Your task to perform on an android device: Search for sushi restaurants on Maps Image 0: 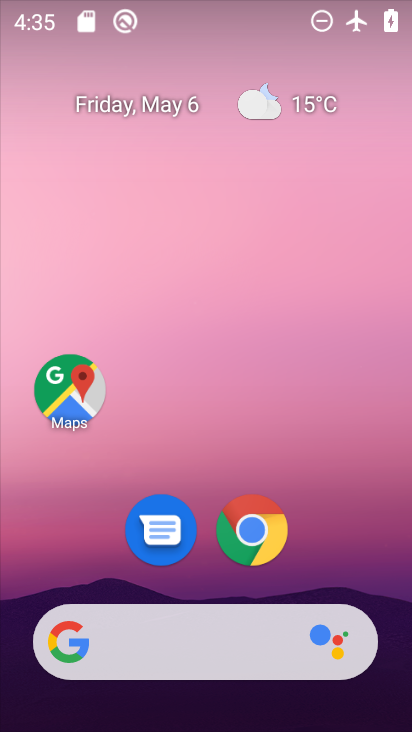
Step 0: click (36, 401)
Your task to perform on an android device: Search for sushi restaurants on Maps Image 1: 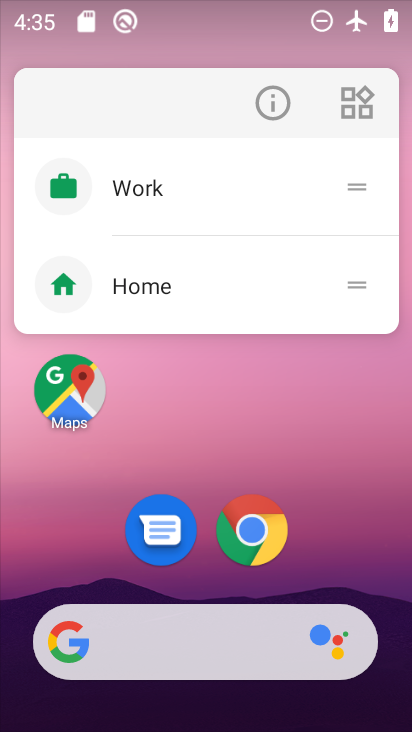
Step 1: click (57, 392)
Your task to perform on an android device: Search for sushi restaurants on Maps Image 2: 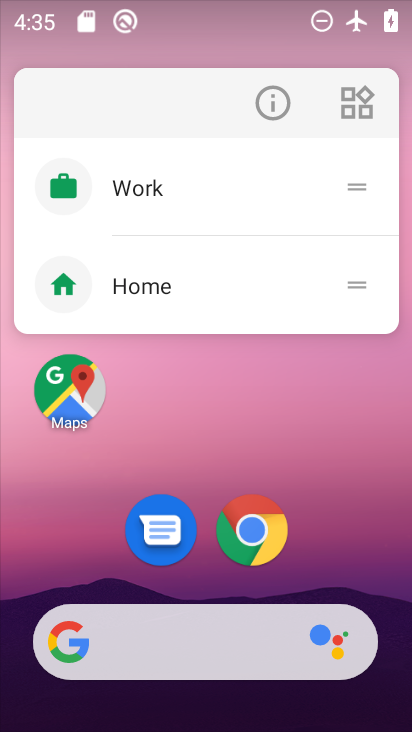
Step 2: click (57, 392)
Your task to perform on an android device: Search for sushi restaurants on Maps Image 3: 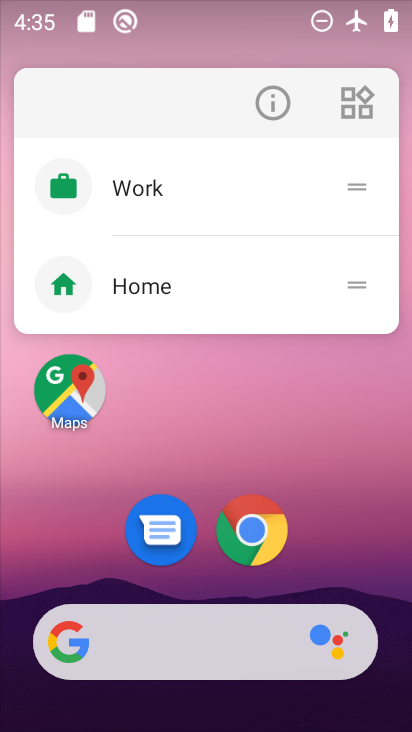
Step 3: click (57, 392)
Your task to perform on an android device: Search for sushi restaurants on Maps Image 4: 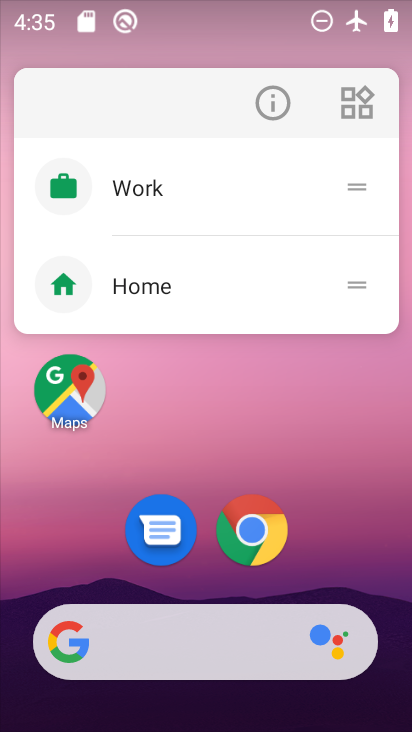
Step 4: click (57, 392)
Your task to perform on an android device: Search for sushi restaurants on Maps Image 5: 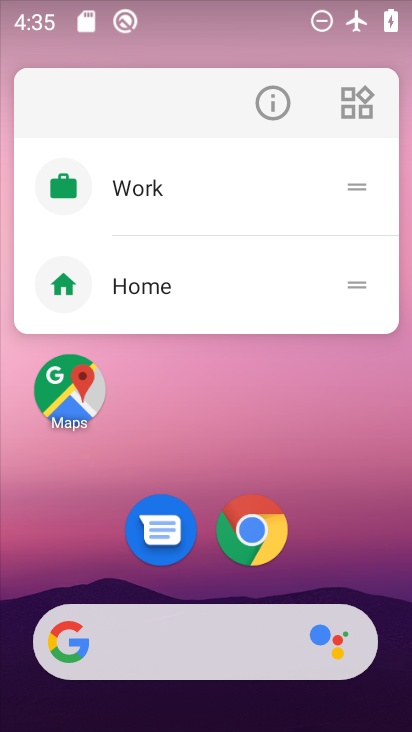
Step 5: drag from (367, 571) to (348, 96)
Your task to perform on an android device: Search for sushi restaurants on Maps Image 6: 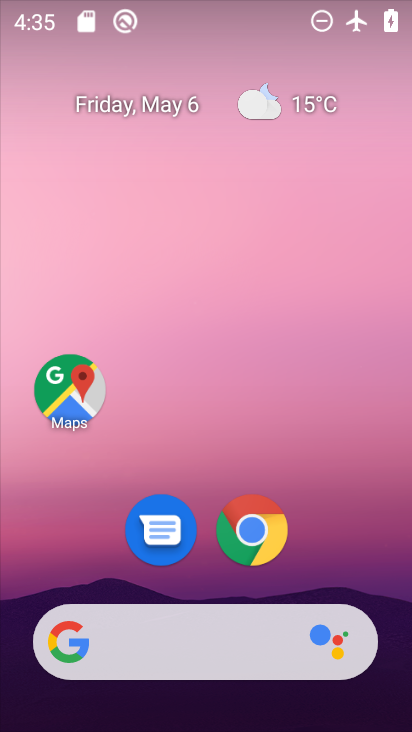
Step 6: drag from (350, 563) to (316, 60)
Your task to perform on an android device: Search for sushi restaurants on Maps Image 7: 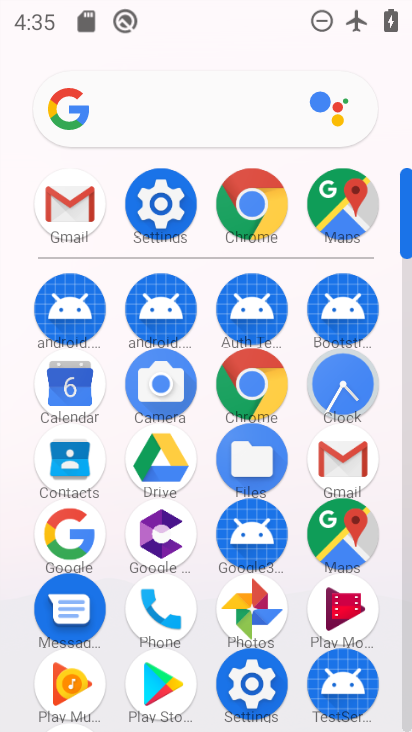
Step 7: click (332, 209)
Your task to perform on an android device: Search for sushi restaurants on Maps Image 8: 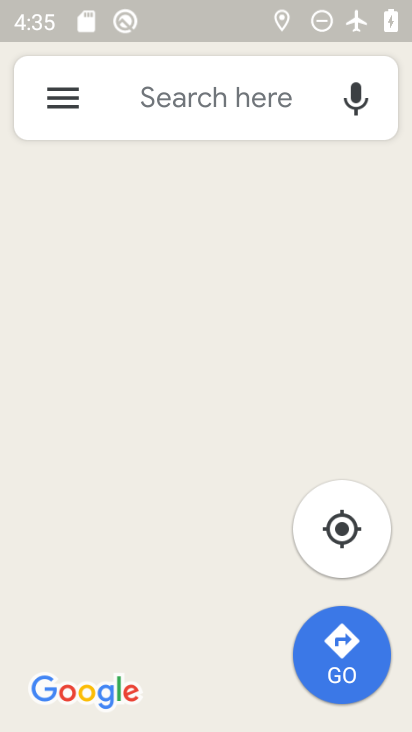
Step 8: click (210, 111)
Your task to perform on an android device: Search for sushi restaurants on Maps Image 9: 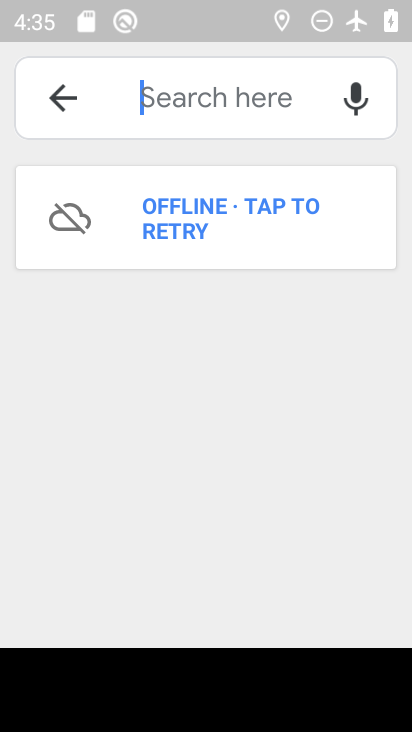
Step 9: task complete